Your task to perform on an android device: toggle data saver in the chrome app Image 0: 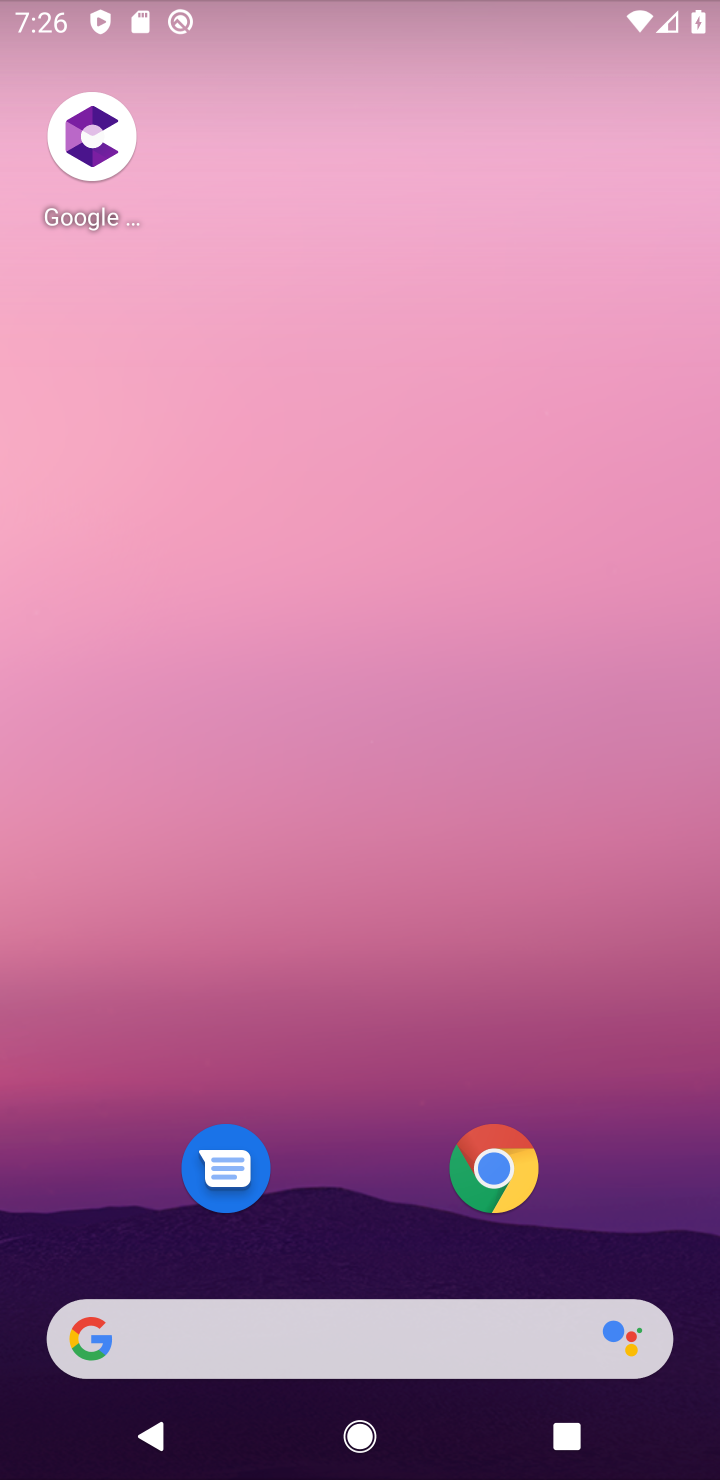
Step 0: press home button
Your task to perform on an android device: toggle data saver in the chrome app Image 1: 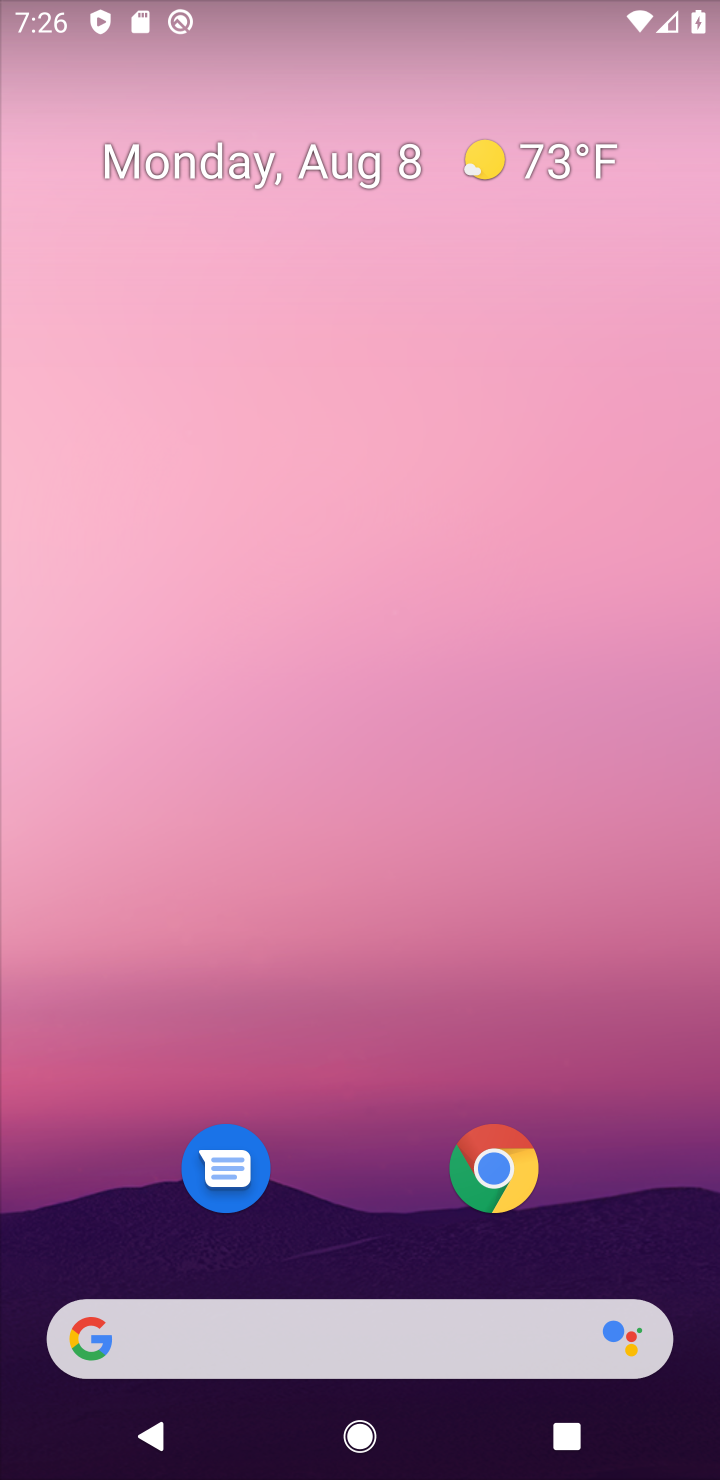
Step 1: click (487, 1159)
Your task to perform on an android device: toggle data saver in the chrome app Image 2: 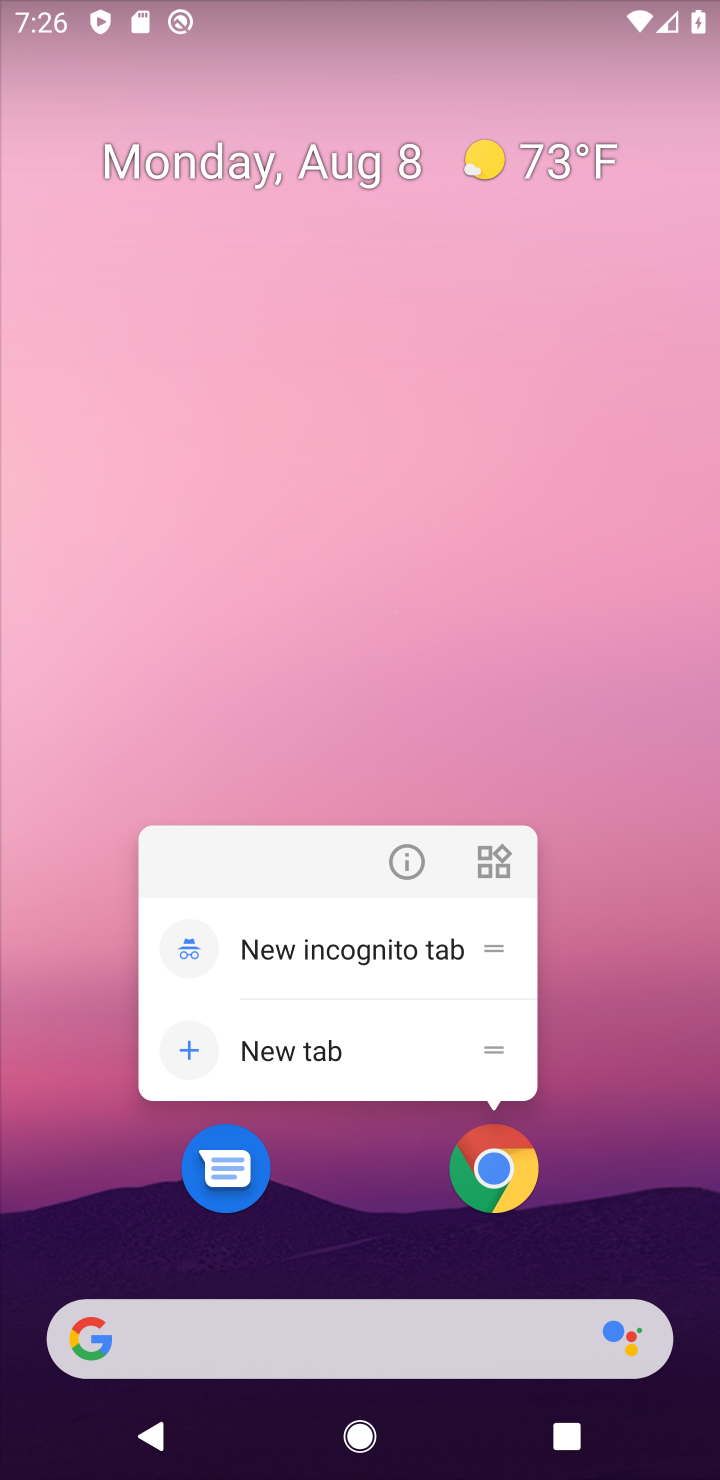
Step 2: click (487, 1159)
Your task to perform on an android device: toggle data saver in the chrome app Image 3: 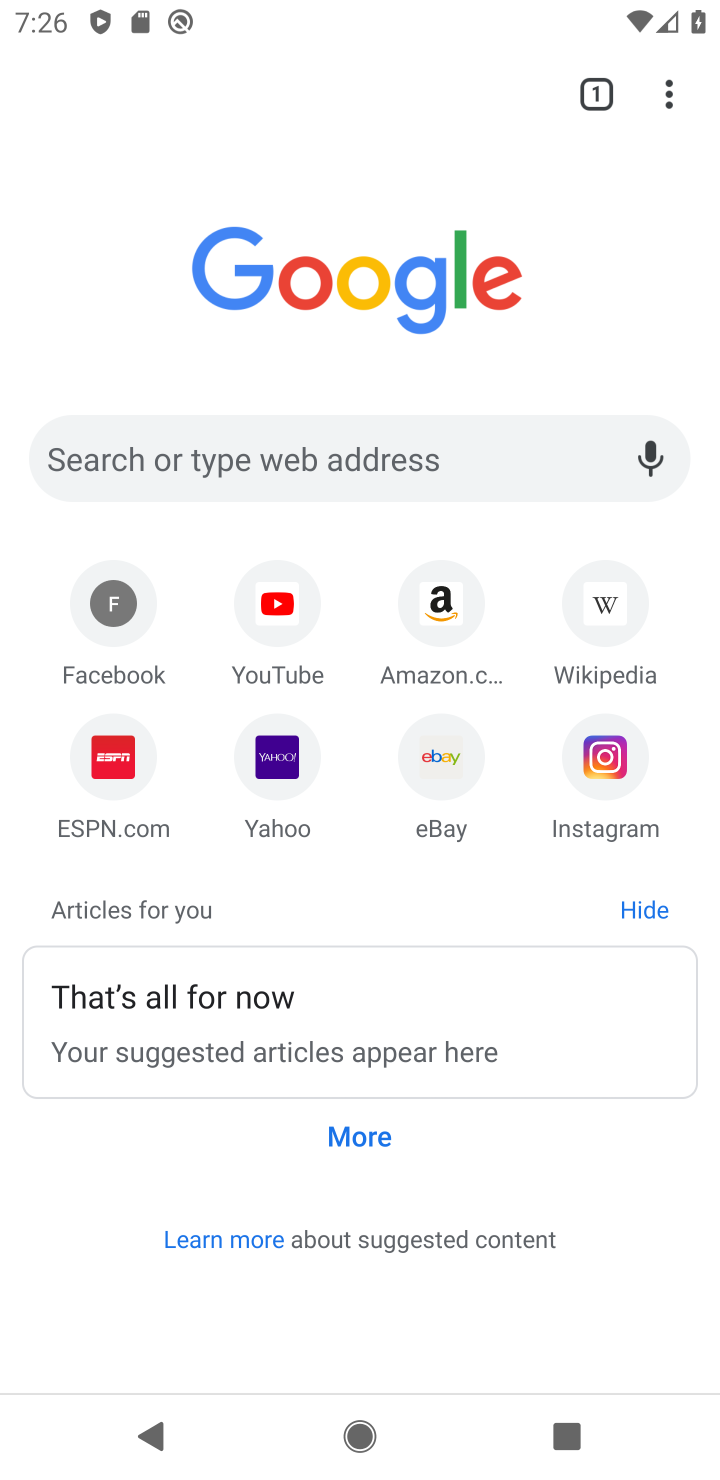
Step 3: drag from (670, 87) to (445, 777)
Your task to perform on an android device: toggle data saver in the chrome app Image 4: 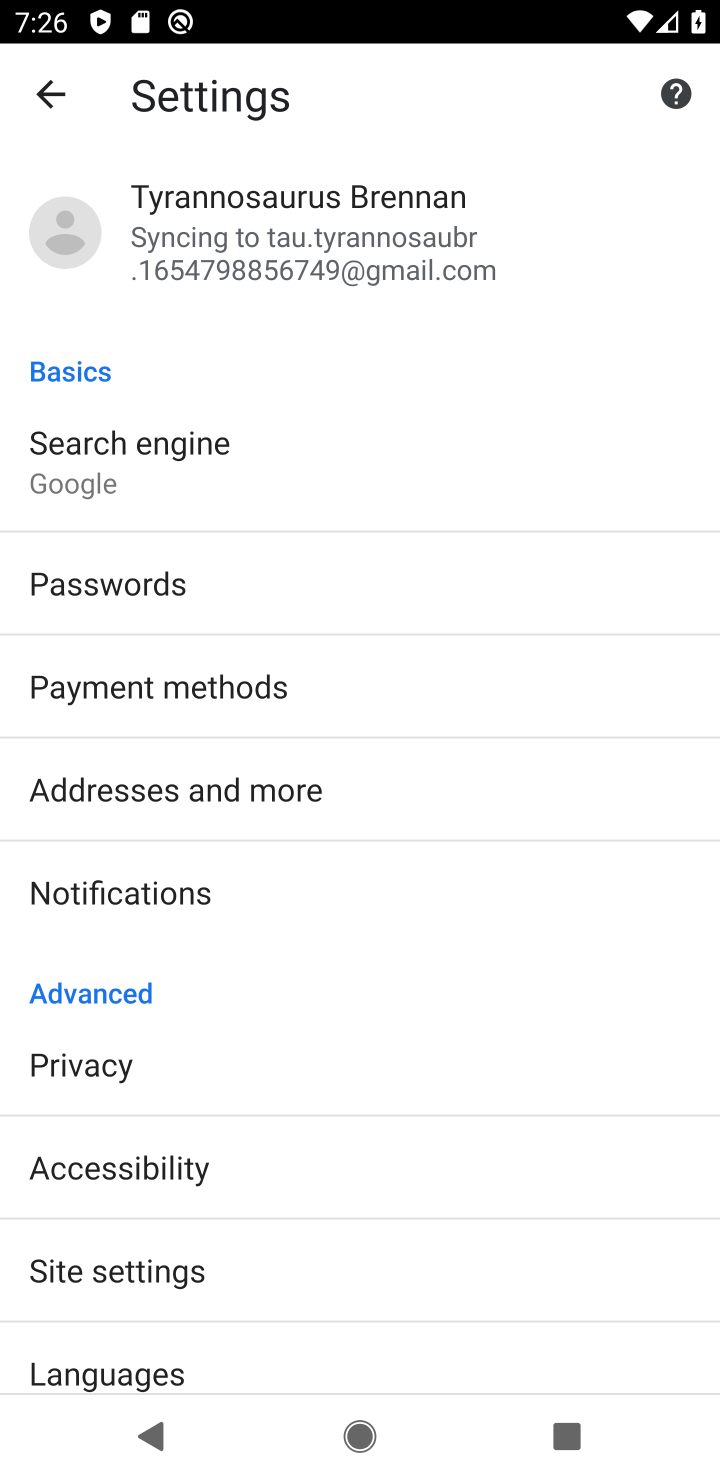
Step 4: drag from (299, 1320) to (444, 357)
Your task to perform on an android device: toggle data saver in the chrome app Image 5: 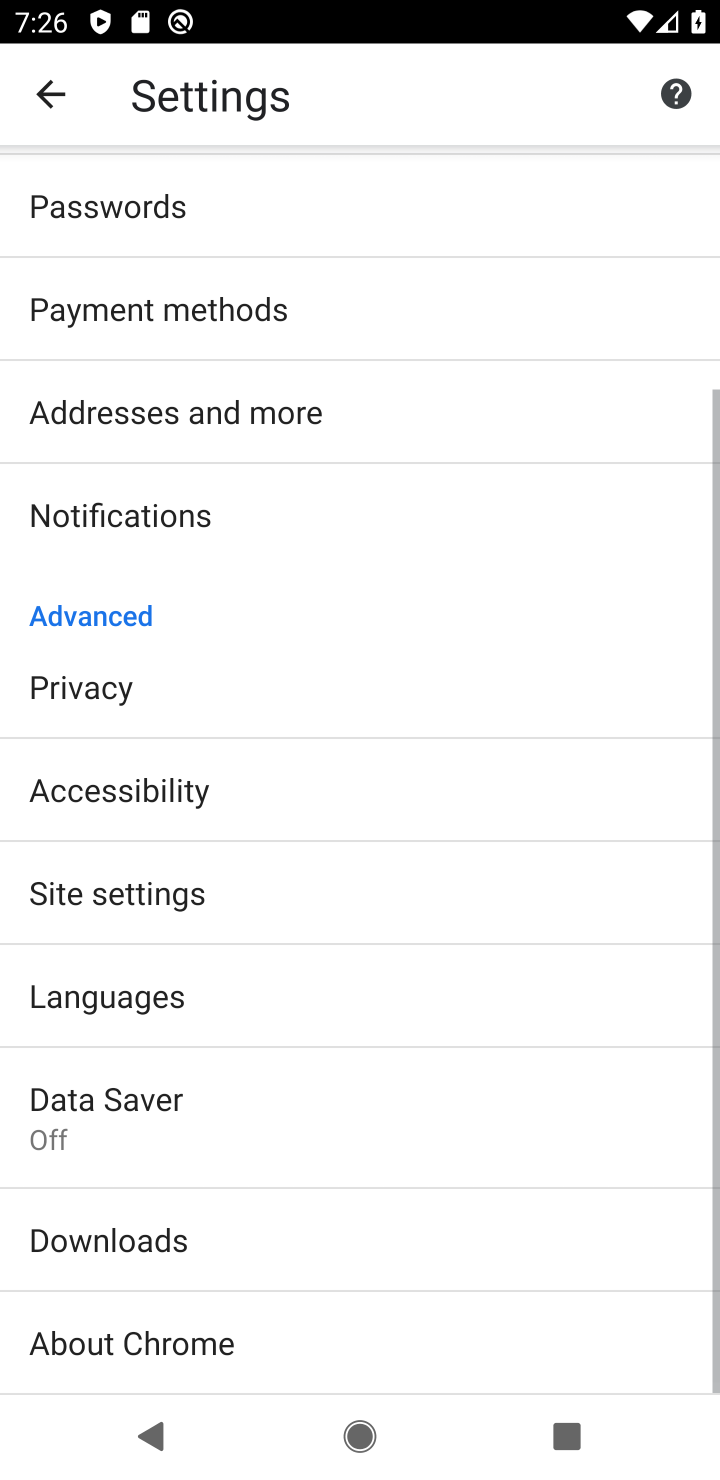
Step 5: click (116, 1100)
Your task to perform on an android device: toggle data saver in the chrome app Image 6: 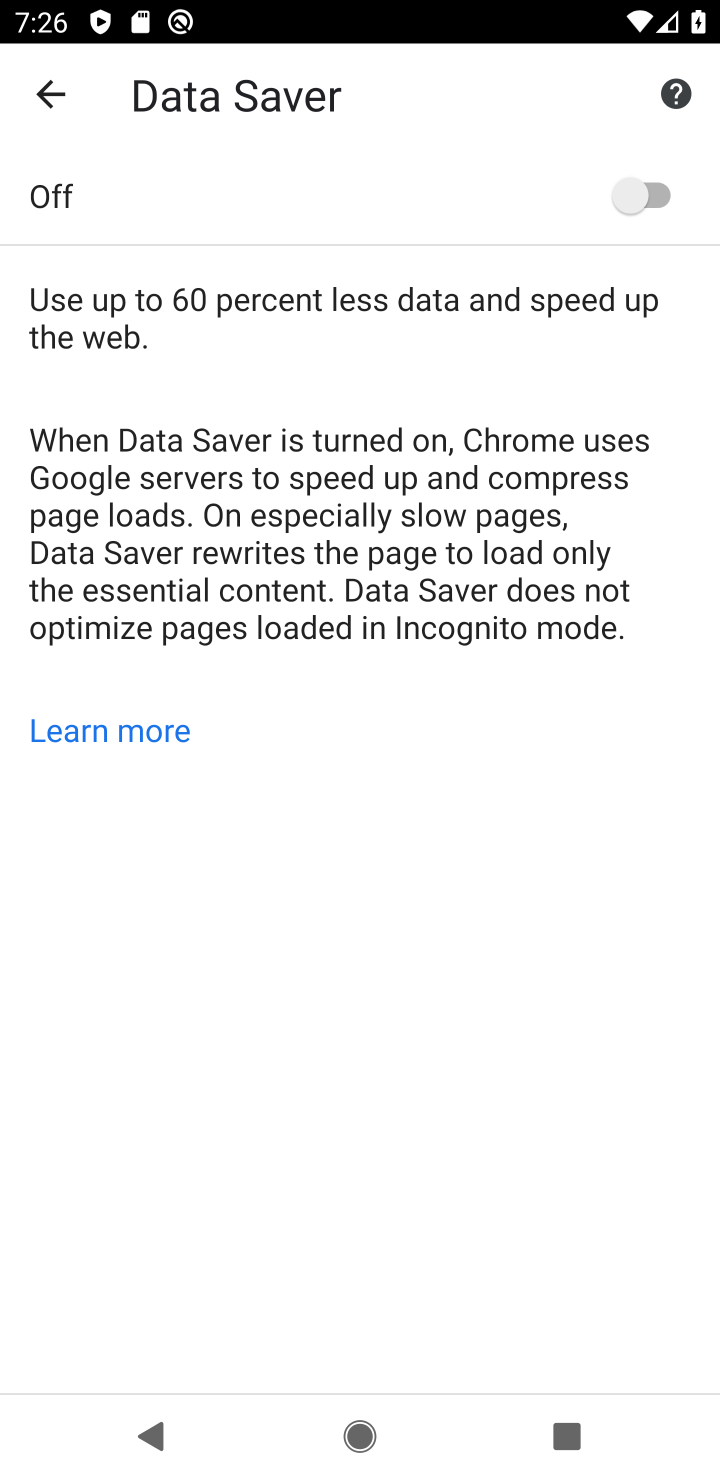
Step 6: click (656, 193)
Your task to perform on an android device: toggle data saver in the chrome app Image 7: 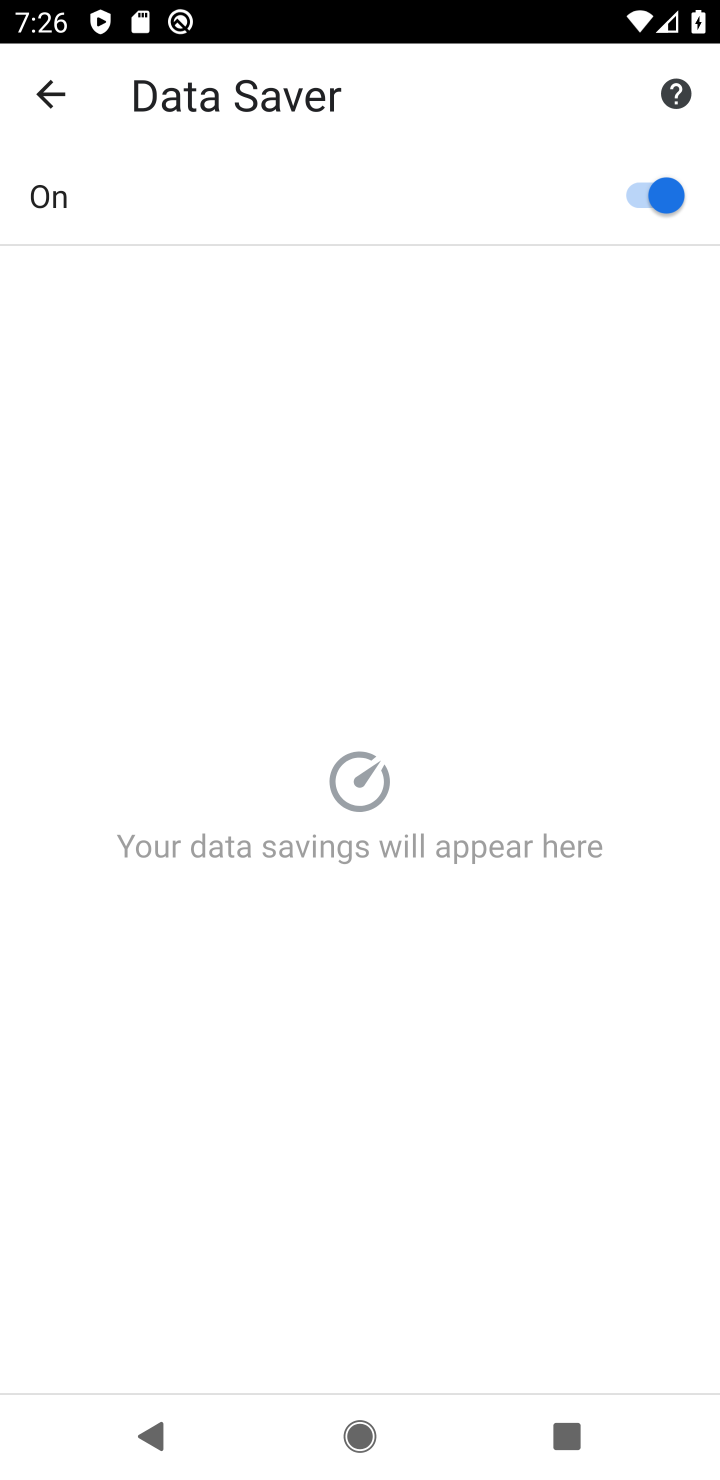
Step 7: task complete